Your task to perform on an android device: Set the phone to "Do not disturb". Image 0: 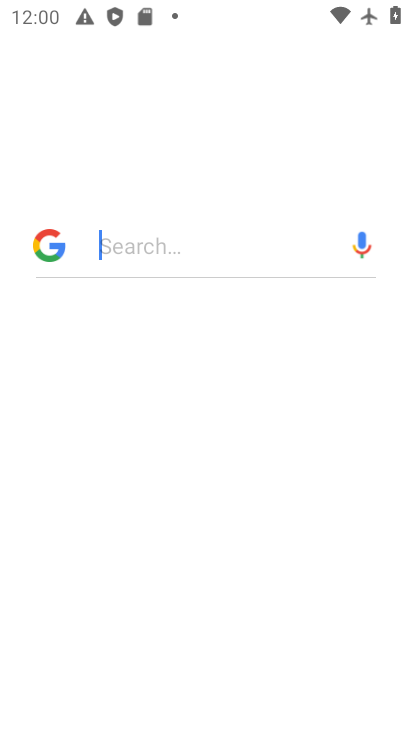
Step 0: drag from (390, 543) to (342, 181)
Your task to perform on an android device: Set the phone to "Do not disturb". Image 1: 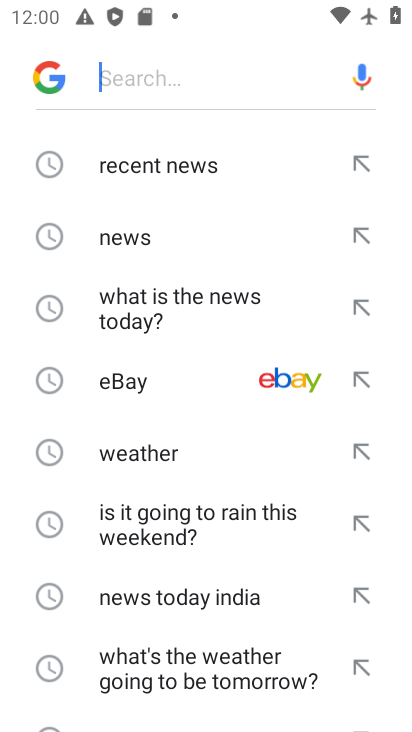
Step 1: press home button
Your task to perform on an android device: Set the phone to "Do not disturb". Image 2: 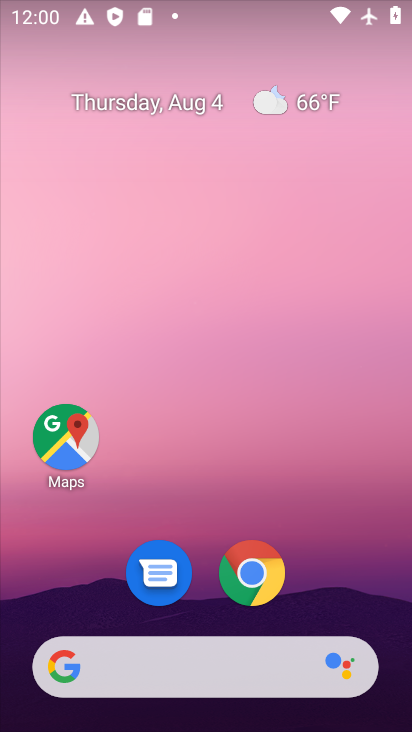
Step 2: drag from (342, 559) to (352, 93)
Your task to perform on an android device: Set the phone to "Do not disturb". Image 3: 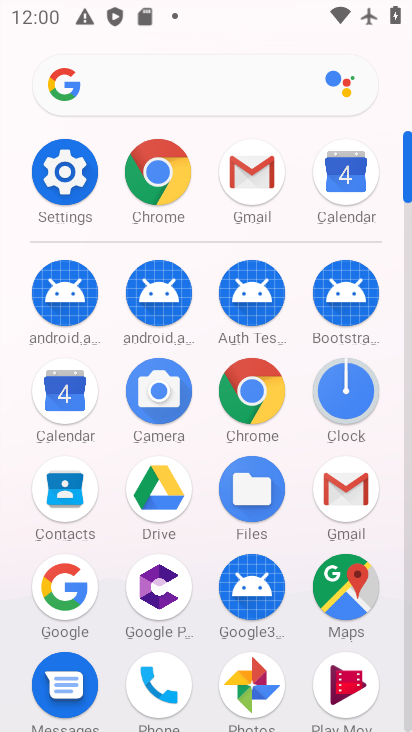
Step 3: click (72, 162)
Your task to perform on an android device: Set the phone to "Do not disturb". Image 4: 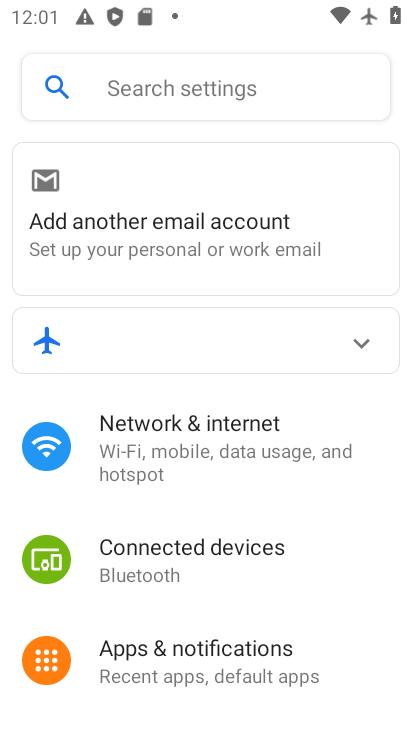
Step 4: click (365, 346)
Your task to perform on an android device: Set the phone to "Do not disturb". Image 5: 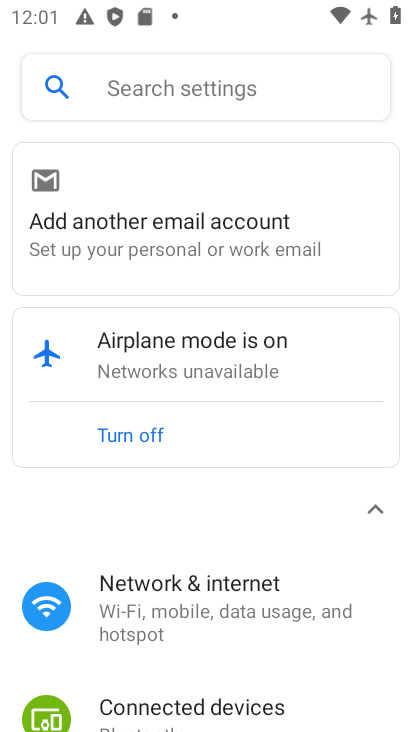
Step 5: click (231, 619)
Your task to perform on an android device: Set the phone to "Do not disturb". Image 6: 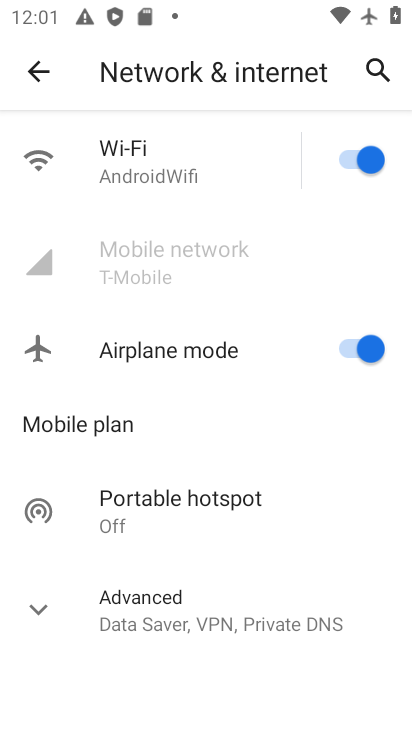
Step 6: click (231, 619)
Your task to perform on an android device: Set the phone to "Do not disturb". Image 7: 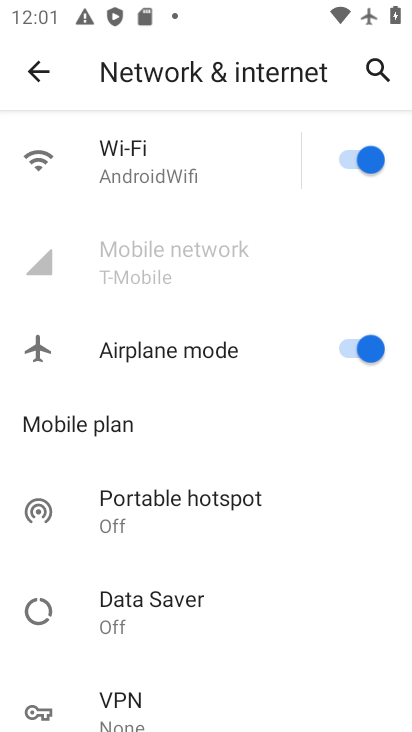
Step 7: drag from (283, 618) to (265, 489)
Your task to perform on an android device: Set the phone to "Do not disturb". Image 8: 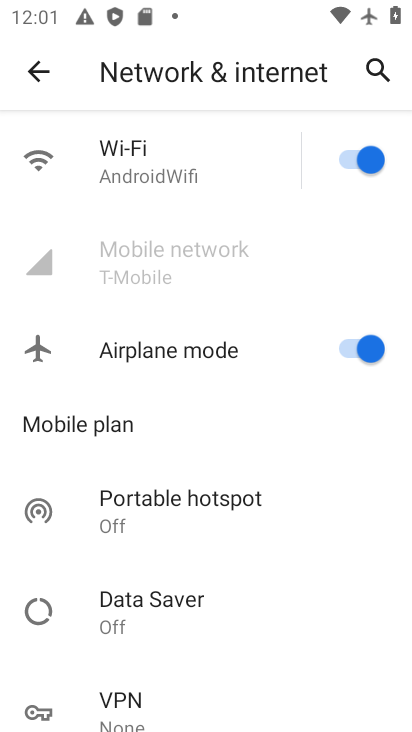
Step 8: drag from (249, 4) to (292, 570)
Your task to perform on an android device: Set the phone to "Do not disturb". Image 9: 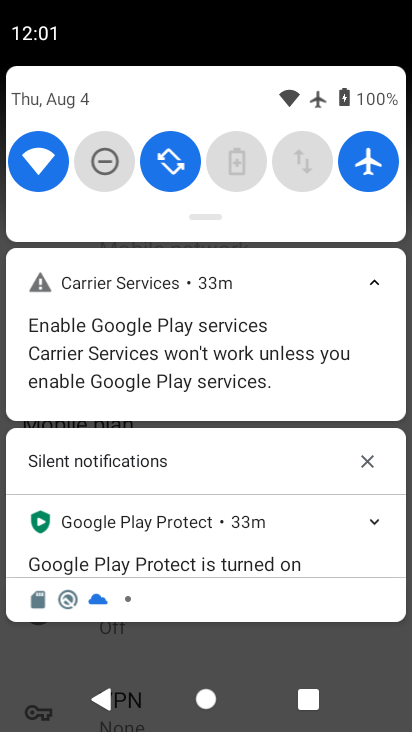
Step 9: click (104, 147)
Your task to perform on an android device: Set the phone to "Do not disturb". Image 10: 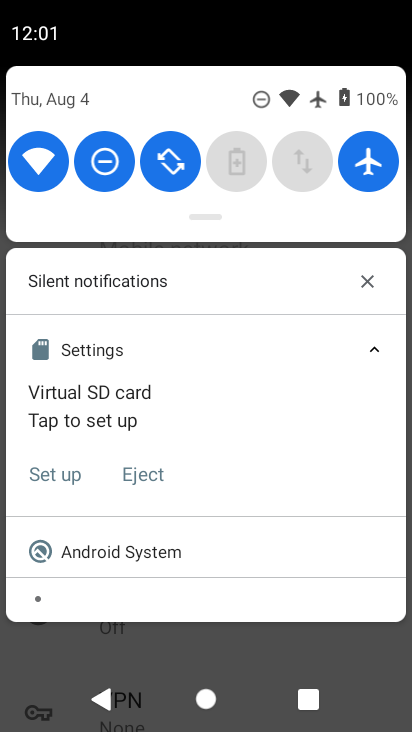
Step 10: task complete